Your task to perform on an android device: When is my next appointment? Image 0: 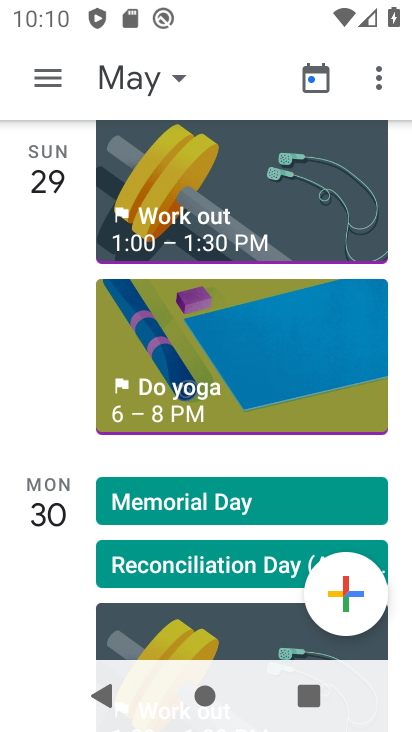
Step 0: press home button
Your task to perform on an android device: When is my next appointment? Image 1: 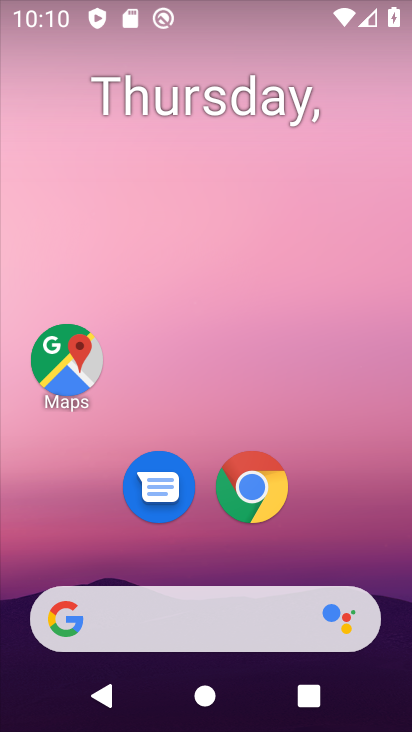
Step 1: drag from (313, 517) to (111, 179)
Your task to perform on an android device: When is my next appointment? Image 2: 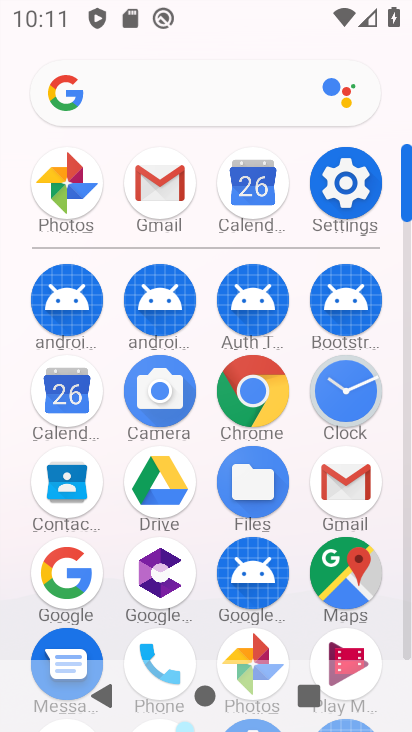
Step 2: click (254, 184)
Your task to perform on an android device: When is my next appointment? Image 3: 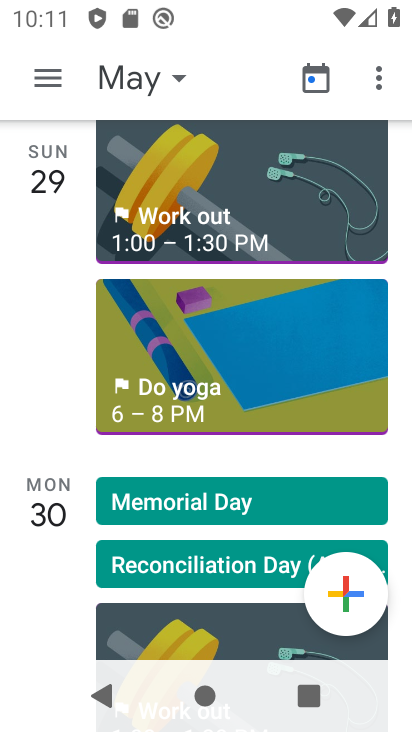
Step 3: drag from (251, 172) to (262, 548)
Your task to perform on an android device: When is my next appointment? Image 4: 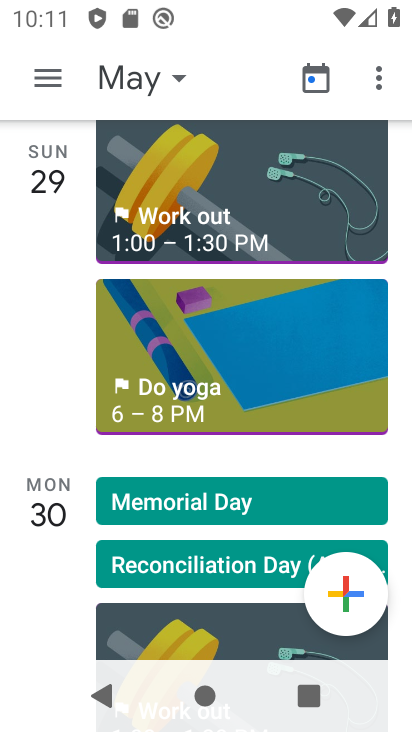
Step 4: click (158, 84)
Your task to perform on an android device: When is my next appointment? Image 5: 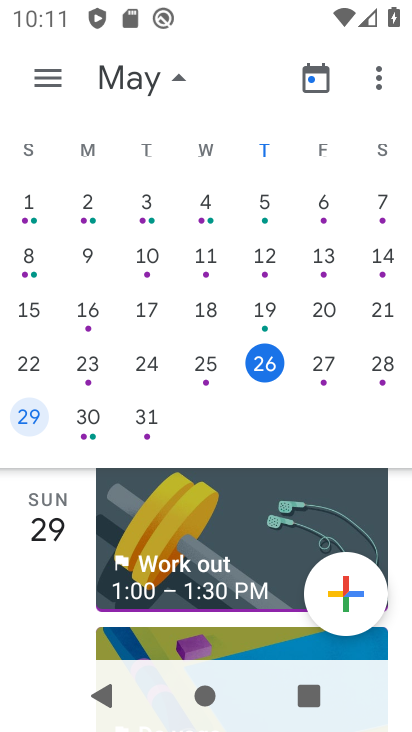
Step 5: click (264, 355)
Your task to perform on an android device: When is my next appointment? Image 6: 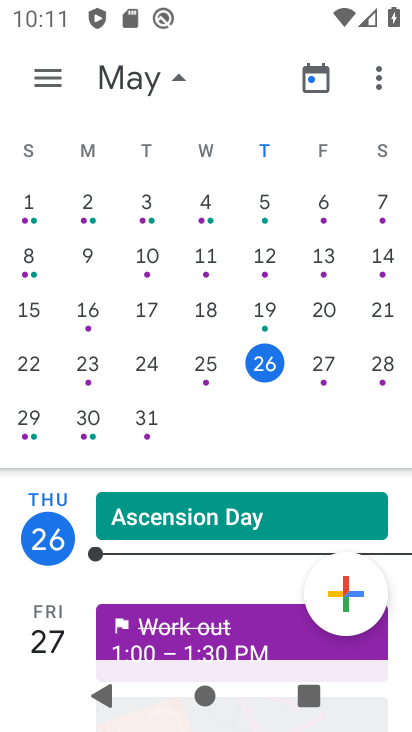
Step 6: click (150, 643)
Your task to perform on an android device: When is my next appointment? Image 7: 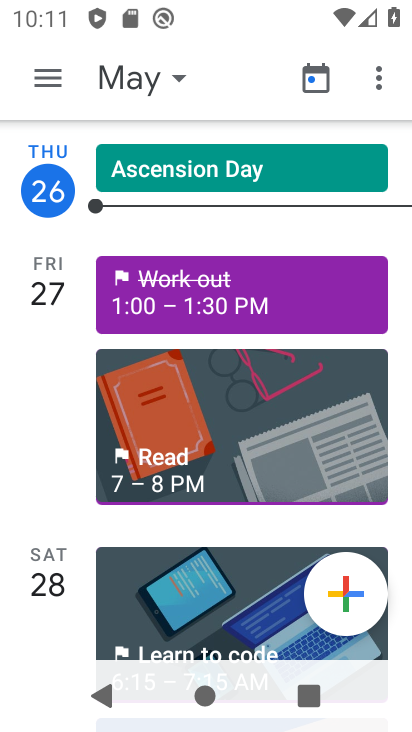
Step 7: click (207, 418)
Your task to perform on an android device: When is my next appointment? Image 8: 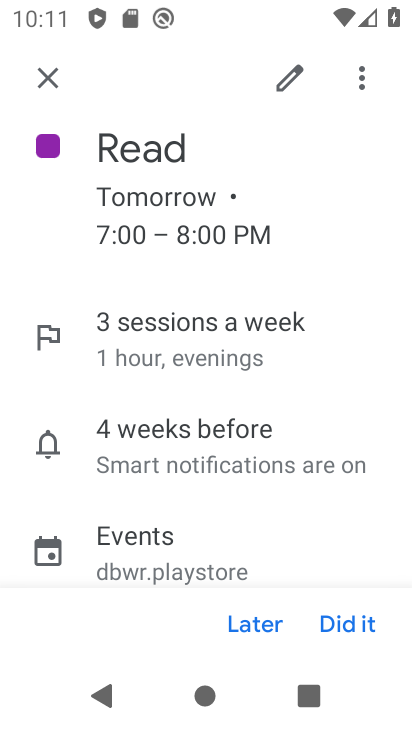
Step 8: task complete